Your task to perform on an android device: Open Google Chrome and click the shortcut for Amazon.com Image 0: 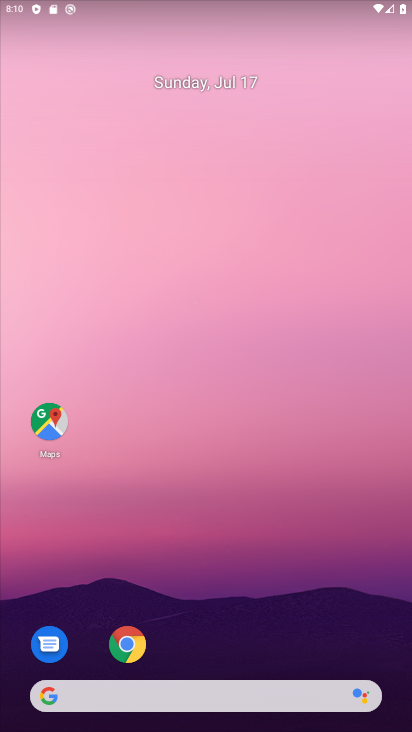
Step 0: drag from (274, 643) to (273, 92)
Your task to perform on an android device: Open Google Chrome and click the shortcut for Amazon.com Image 1: 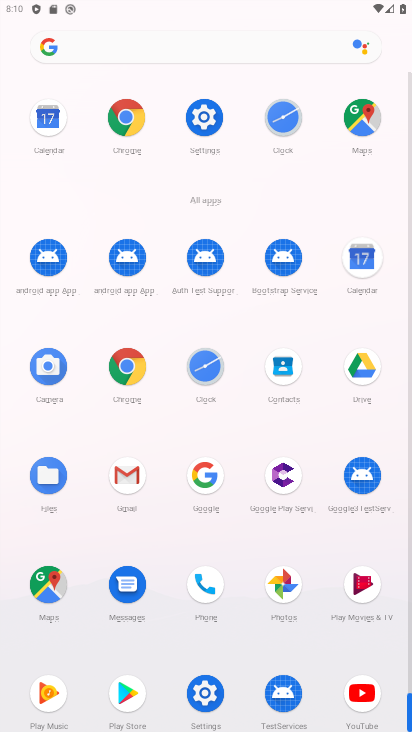
Step 1: click (124, 112)
Your task to perform on an android device: Open Google Chrome and click the shortcut for Amazon.com Image 2: 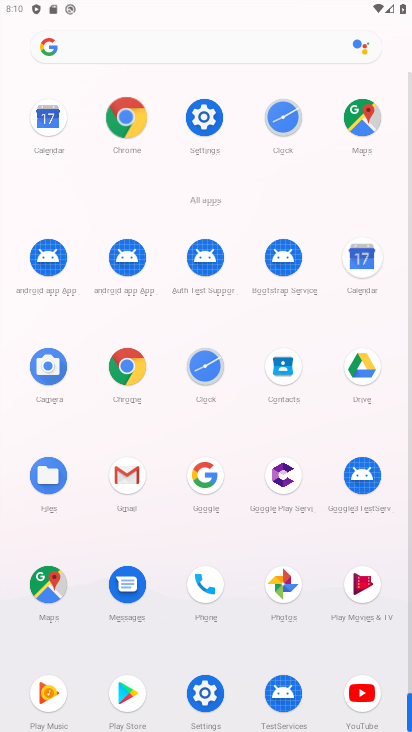
Step 2: click (130, 104)
Your task to perform on an android device: Open Google Chrome and click the shortcut for Amazon.com Image 3: 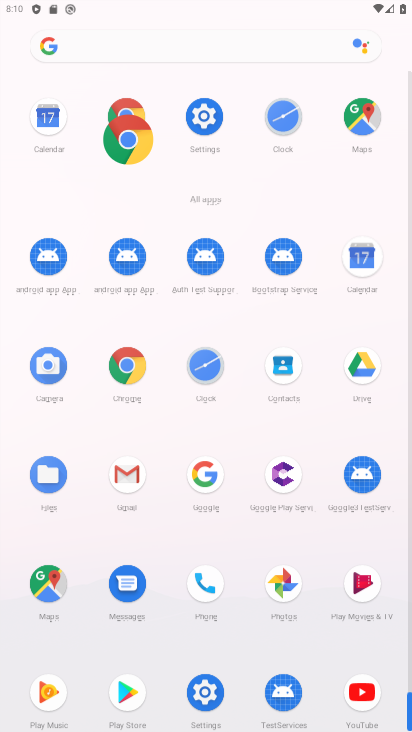
Step 3: click (130, 104)
Your task to perform on an android device: Open Google Chrome and click the shortcut for Amazon.com Image 4: 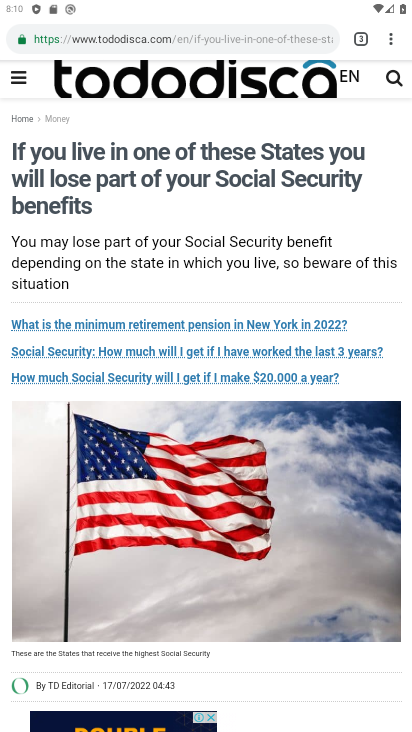
Step 4: drag from (399, 36) to (253, 74)
Your task to perform on an android device: Open Google Chrome and click the shortcut for Amazon.com Image 5: 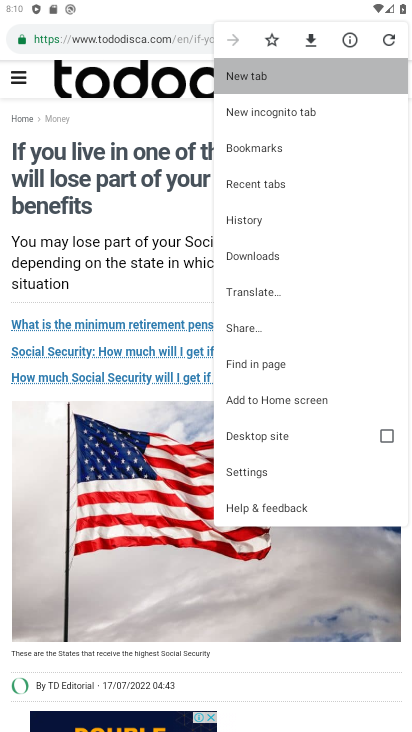
Step 5: click (248, 81)
Your task to perform on an android device: Open Google Chrome and click the shortcut for Amazon.com Image 6: 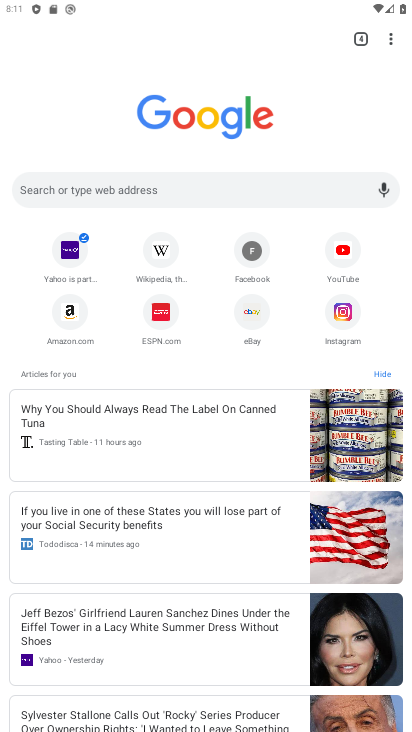
Step 6: click (75, 314)
Your task to perform on an android device: Open Google Chrome and click the shortcut for Amazon.com Image 7: 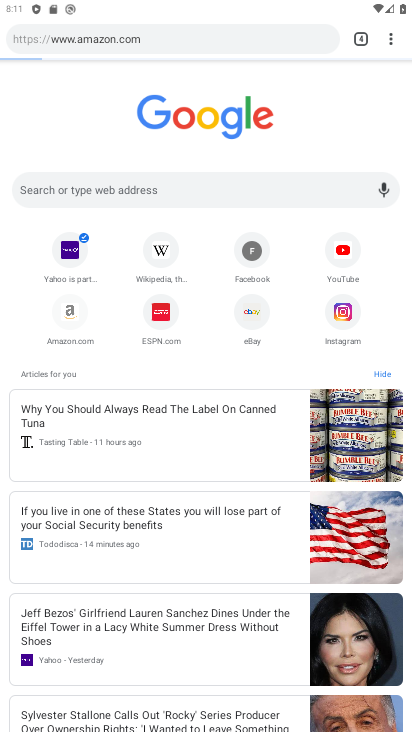
Step 7: click (76, 337)
Your task to perform on an android device: Open Google Chrome and click the shortcut for Amazon.com Image 8: 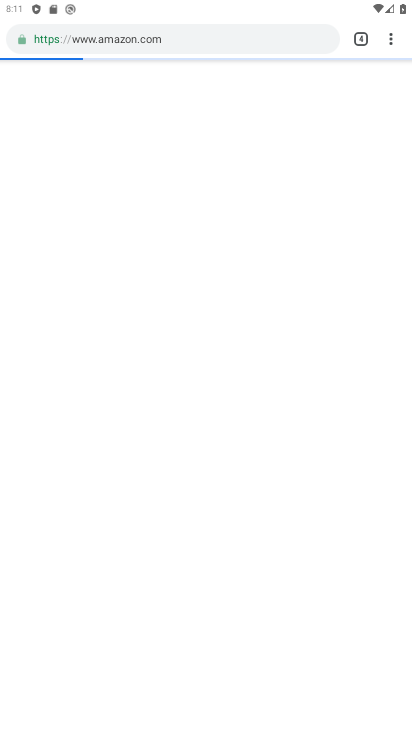
Step 8: click (73, 340)
Your task to perform on an android device: Open Google Chrome and click the shortcut for Amazon.com Image 9: 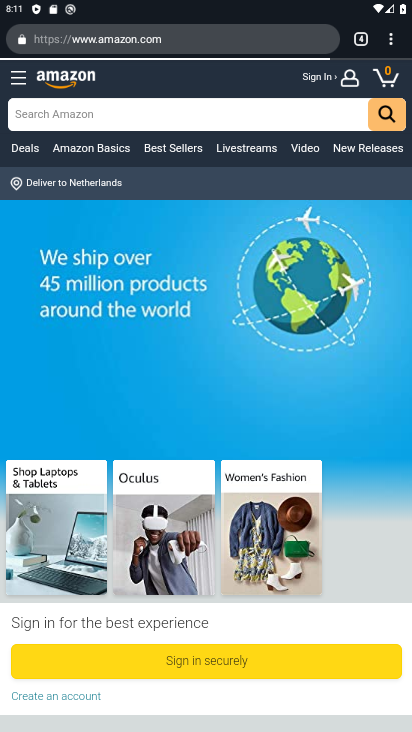
Step 9: task complete